Your task to perform on an android device: open a new tab in the chrome app Image 0: 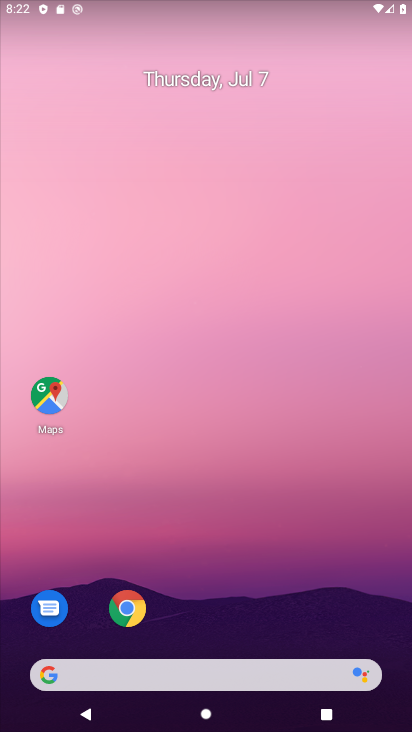
Step 0: drag from (258, 594) to (226, 220)
Your task to perform on an android device: open a new tab in the chrome app Image 1: 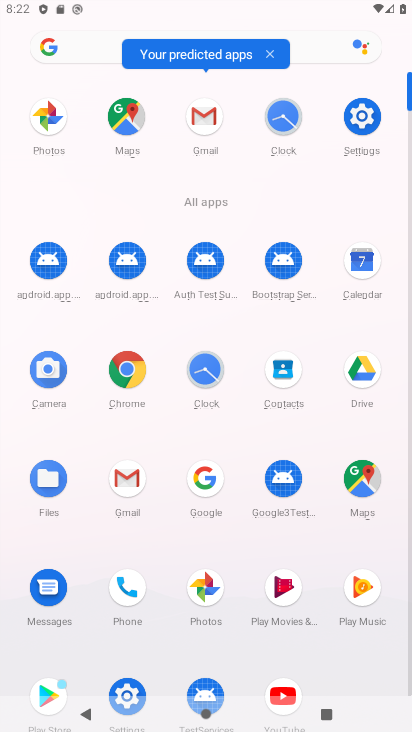
Step 1: click (119, 351)
Your task to perform on an android device: open a new tab in the chrome app Image 2: 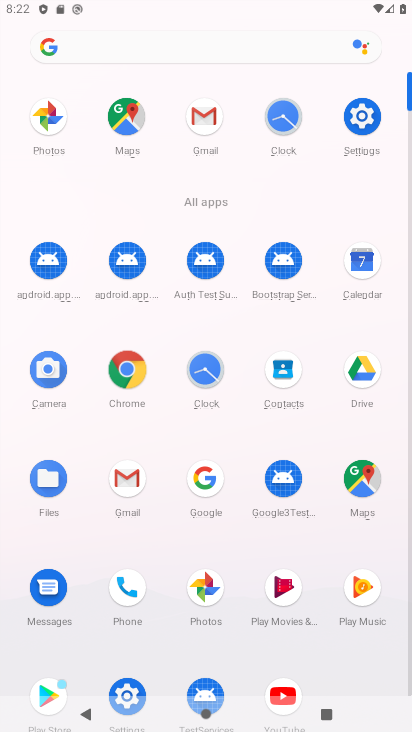
Step 2: click (139, 377)
Your task to perform on an android device: open a new tab in the chrome app Image 3: 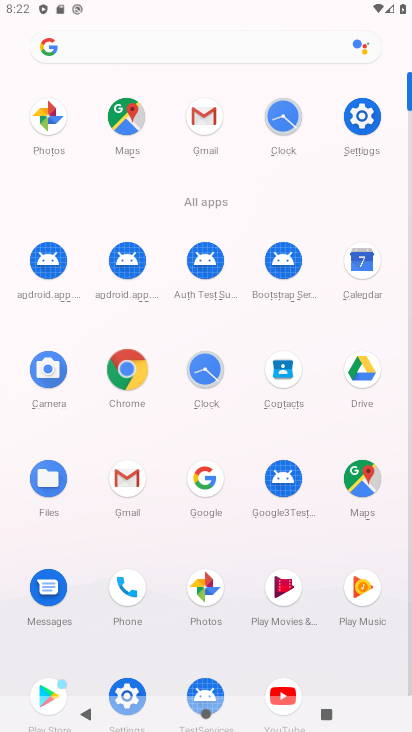
Step 3: click (139, 377)
Your task to perform on an android device: open a new tab in the chrome app Image 4: 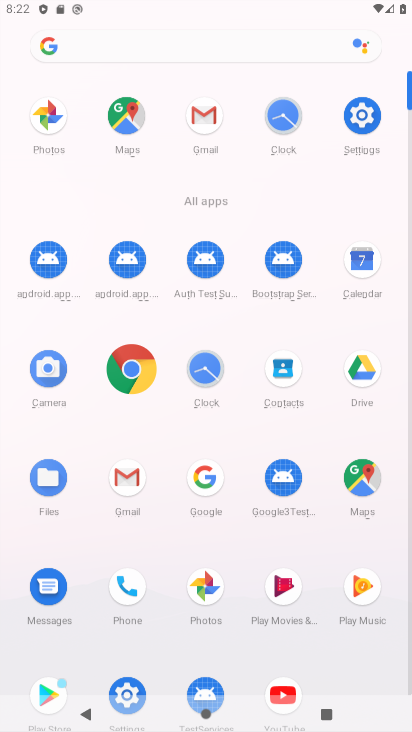
Step 4: click (135, 369)
Your task to perform on an android device: open a new tab in the chrome app Image 5: 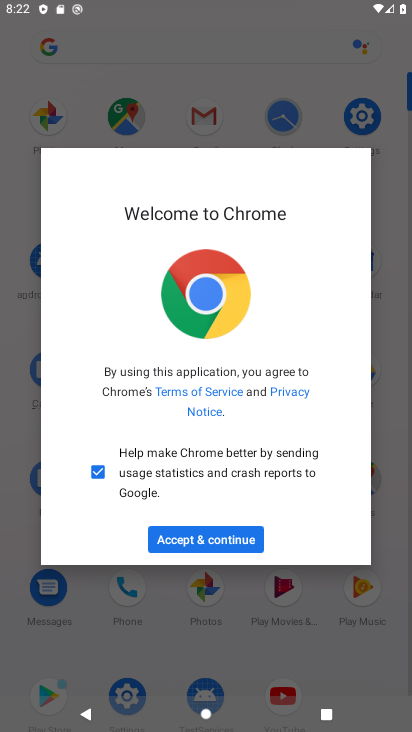
Step 5: click (205, 545)
Your task to perform on an android device: open a new tab in the chrome app Image 6: 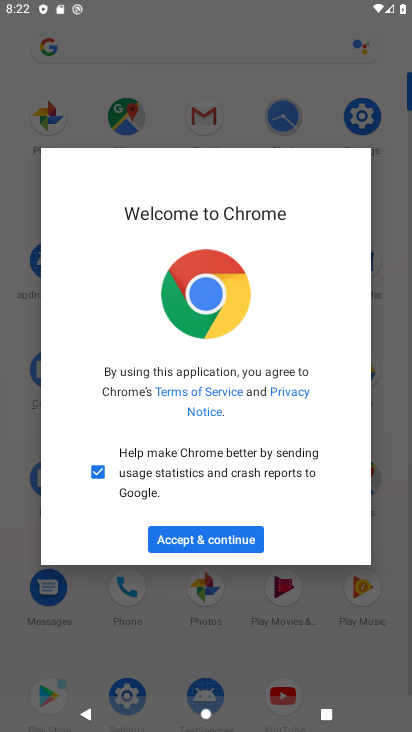
Step 6: click (205, 545)
Your task to perform on an android device: open a new tab in the chrome app Image 7: 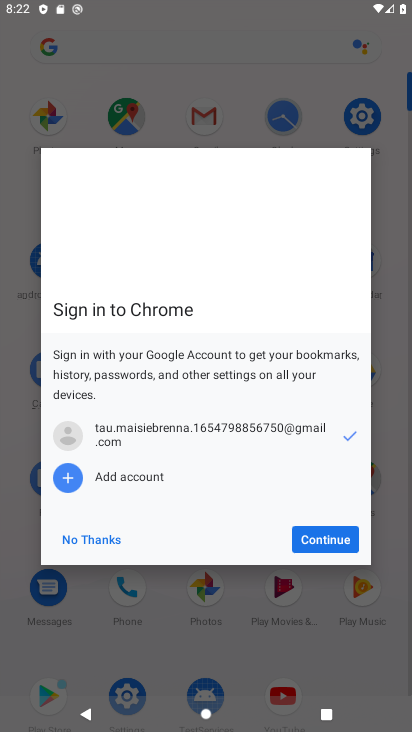
Step 7: click (338, 545)
Your task to perform on an android device: open a new tab in the chrome app Image 8: 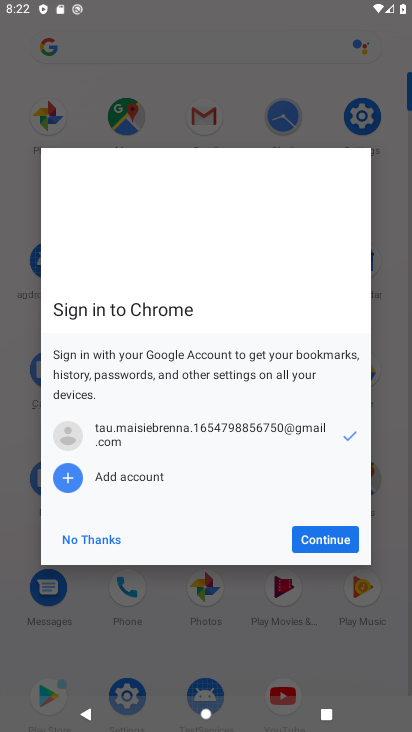
Step 8: click (338, 545)
Your task to perform on an android device: open a new tab in the chrome app Image 9: 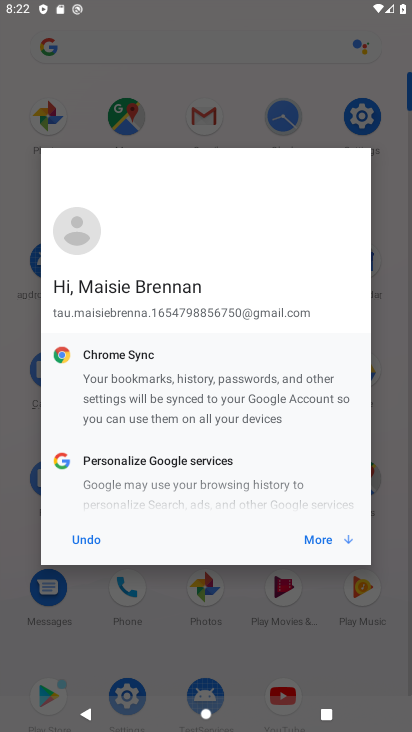
Step 9: click (338, 545)
Your task to perform on an android device: open a new tab in the chrome app Image 10: 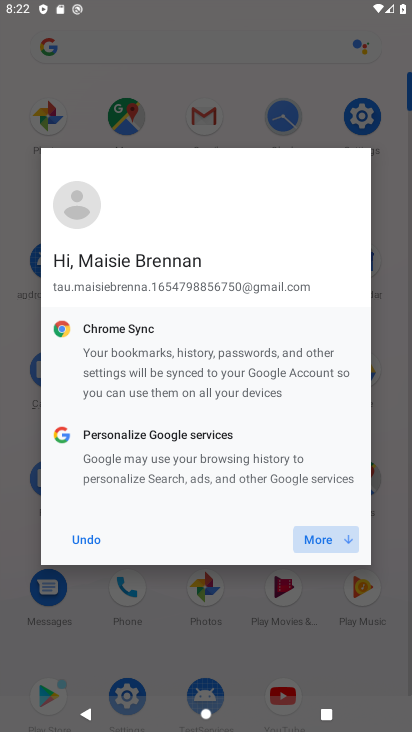
Step 10: click (338, 543)
Your task to perform on an android device: open a new tab in the chrome app Image 11: 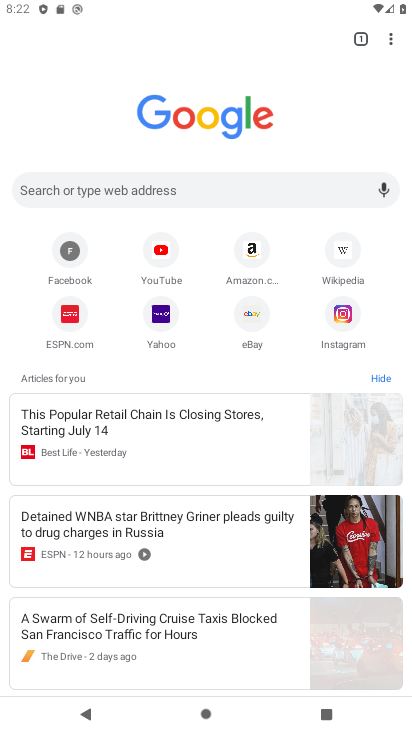
Step 11: task complete